Your task to perform on an android device: Check the weather Image 0: 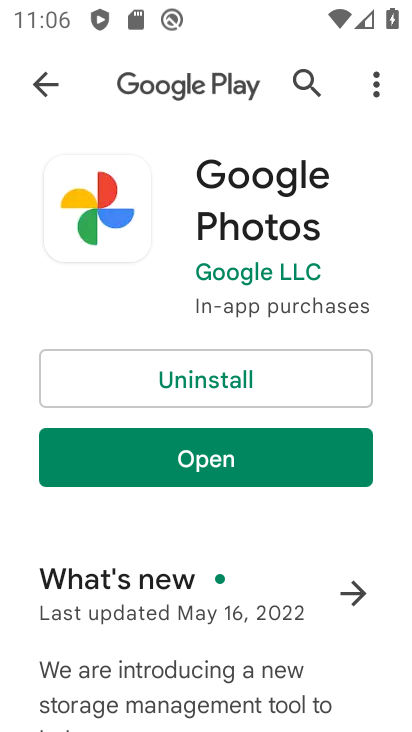
Step 0: press home button
Your task to perform on an android device: Check the weather Image 1: 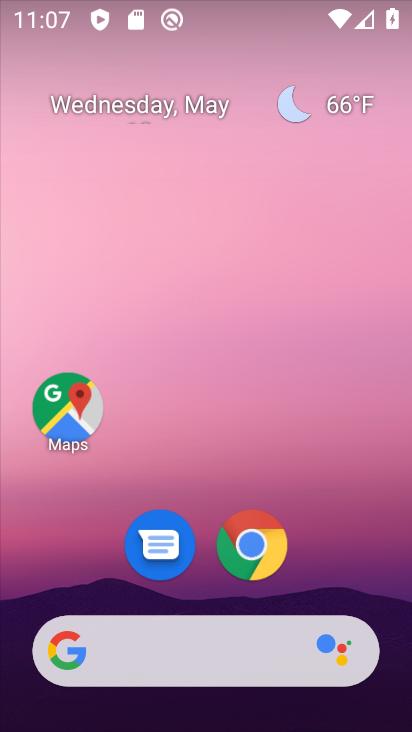
Step 1: click (214, 637)
Your task to perform on an android device: Check the weather Image 2: 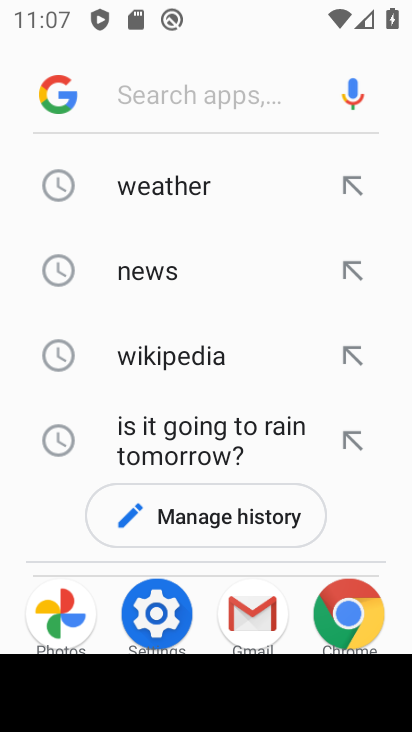
Step 2: click (228, 180)
Your task to perform on an android device: Check the weather Image 3: 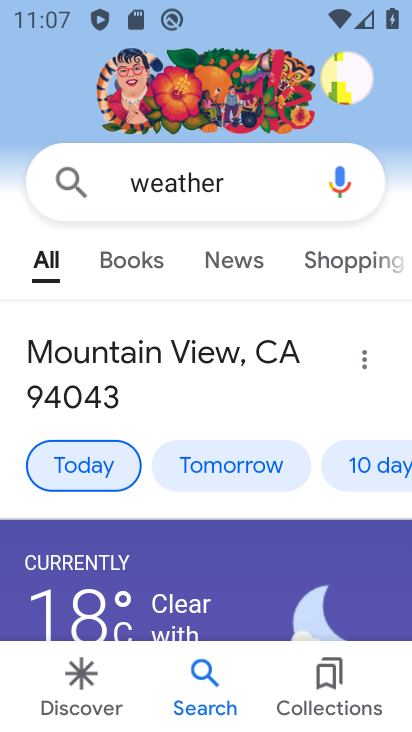
Step 3: task complete